Your task to perform on an android device: Go to eBay Image 0: 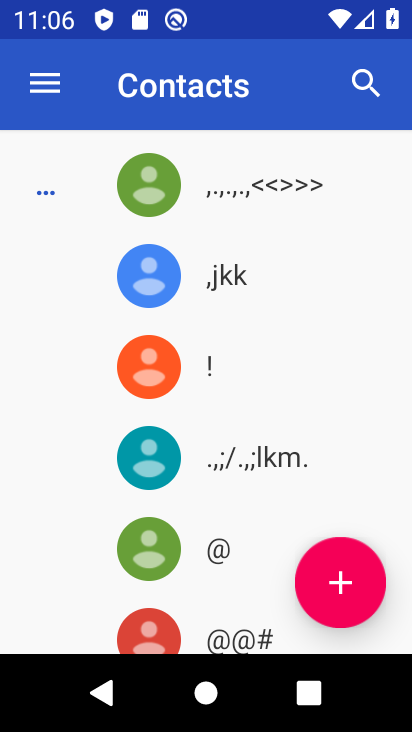
Step 0: press home button
Your task to perform on an android device: Go to eBay Image 1: 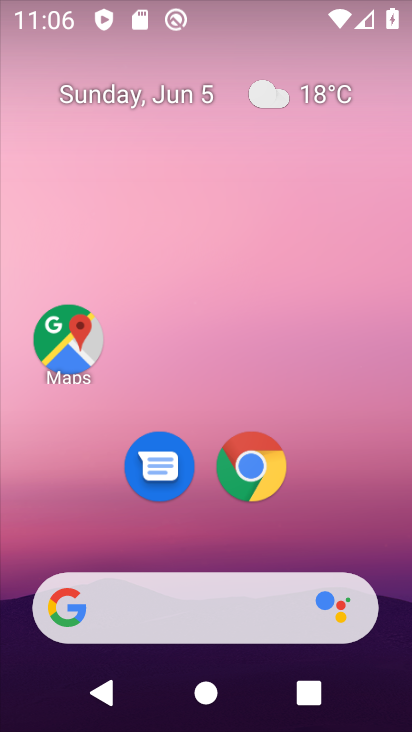
Step 1: drag from (338, 554) to (341, 162)
Your task to perform on an android device: Go to eBay Image 2: 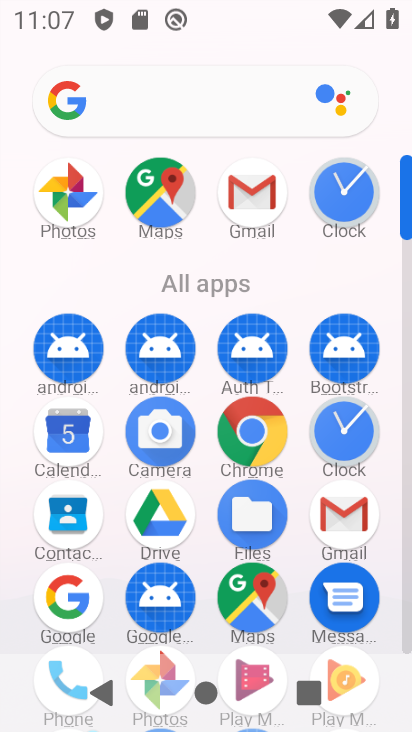
Step 2: click (257, 439)
Your task to perform on an android device: Go to eBay Image 3: 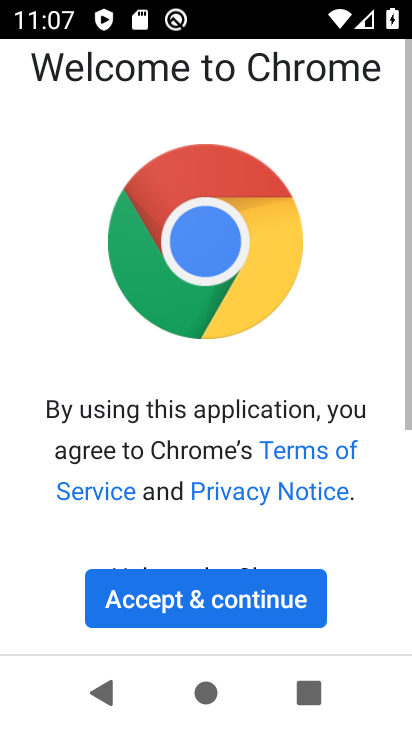
Step 3: click (239, 614)
Your task to perform on an android device: Go to eBay Image 4: 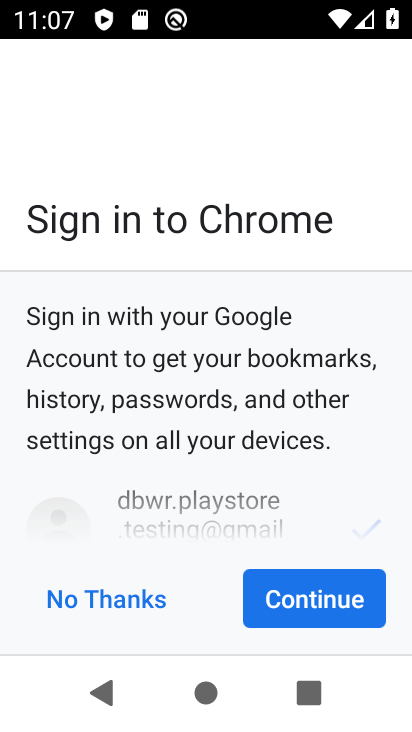
Step 4: click (296, 610)
Your task to perform on an android device: Go to eBay Image 5: 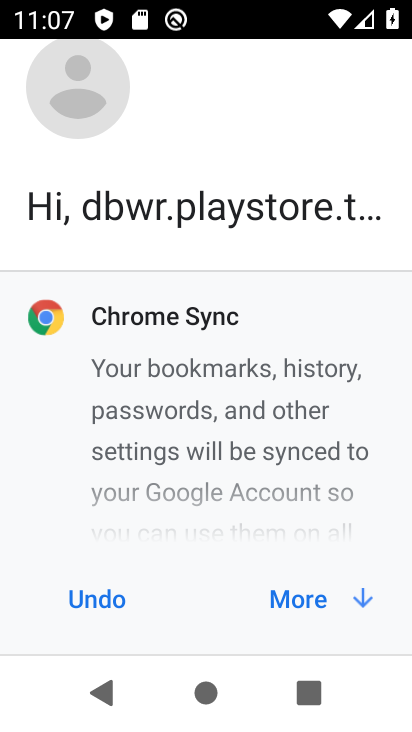
Step 5: click (292, 606)
Your task to perform on an android device: Go to eBay Image 6: 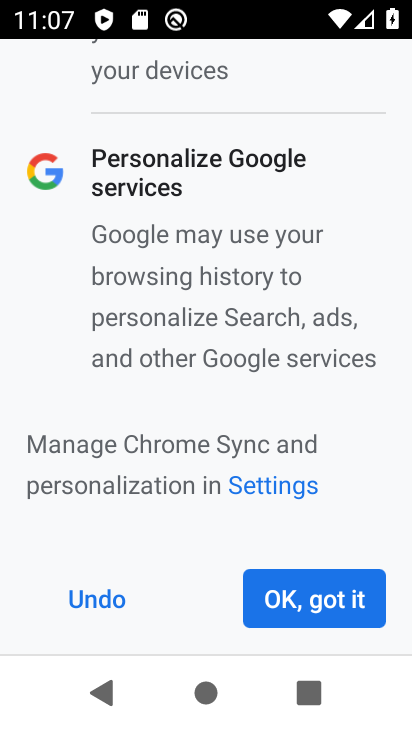
Step 6: click (290, 605)
Your task to perform on an android device: Go to eBay Image 7: 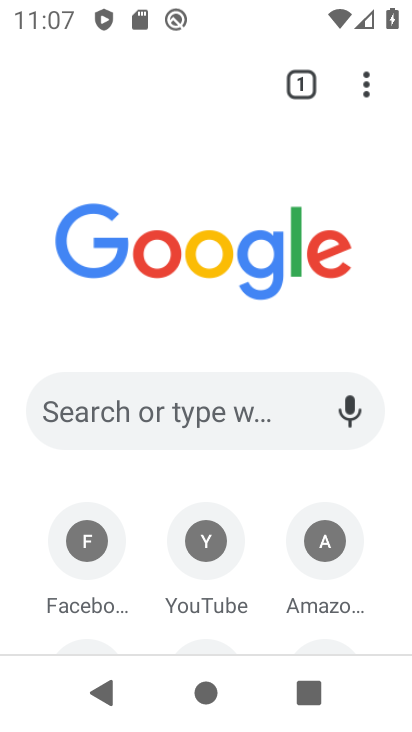
Step 7: click (219, 410)
Your task to perform on an android device: Go to eBay Image 8: 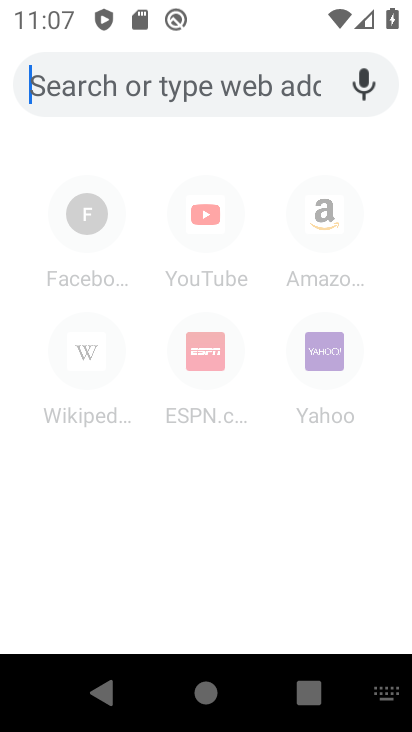
Step 8: click (157, 95)
Your task to perform on an android device: Go to eBay Image 9: 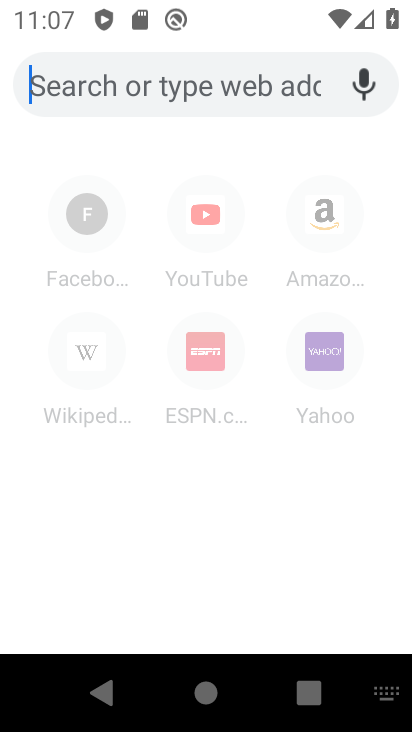
Step 9: type "ebay"
Your task to perform on an android device: Go to eBay Image 10: 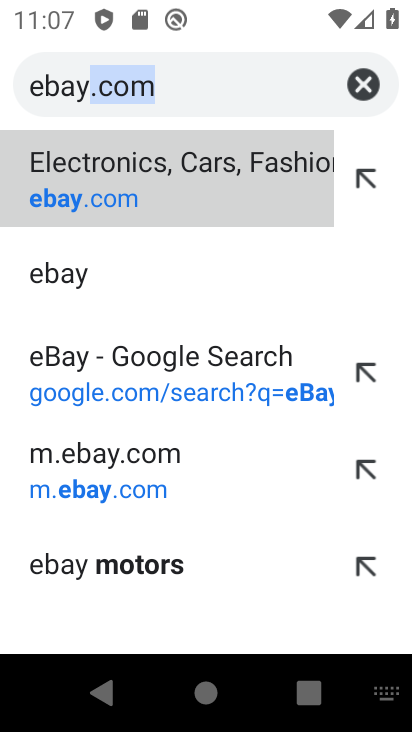
Step 10: click (76, 200)
Your task to perform on an android device: Go to eBay Image 11: 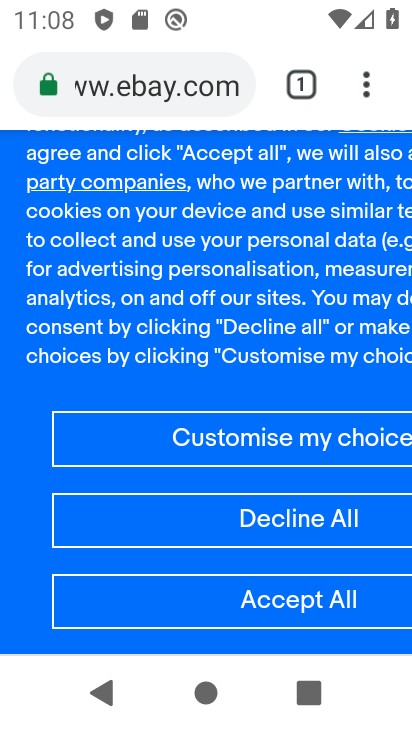
Step 11: task complete